Your task to perform on an android device: Show me recent news Image 0: 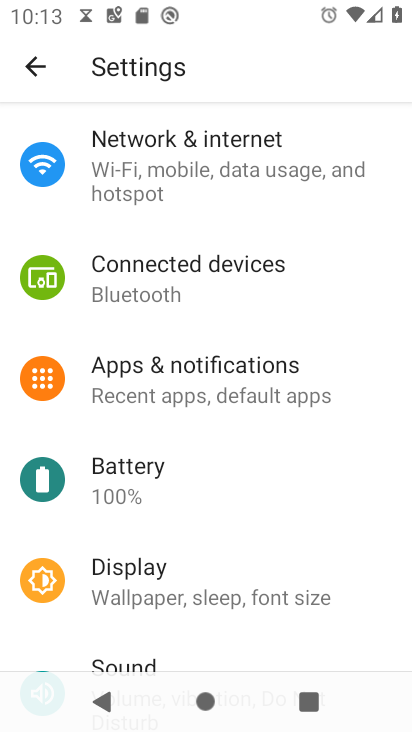
Step 0: press home button
Your task to perform on an android device: Show me recent news Image 1: 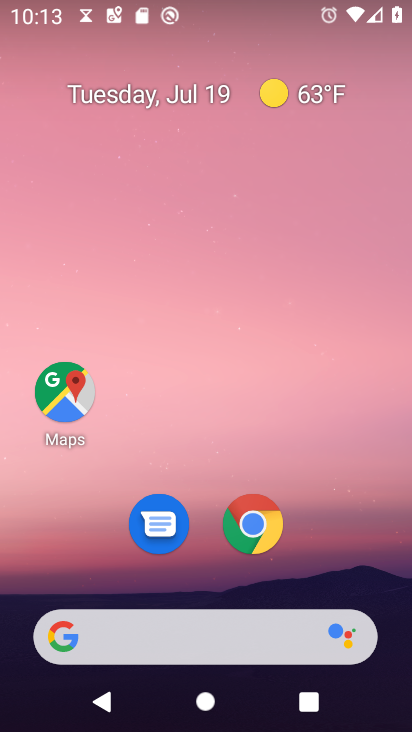
Step 1: click (202, 635)
Your task to perform on an android device: Show me recent news Image 2: 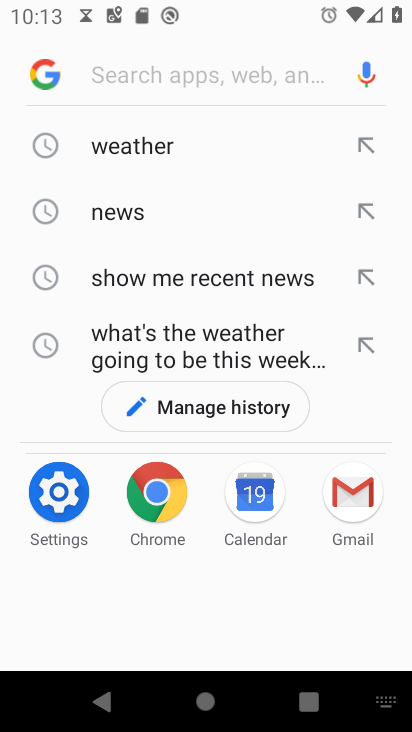
Step 2: click (127, 211)
Your task to perform on an android device: Show me recent news Image 3: 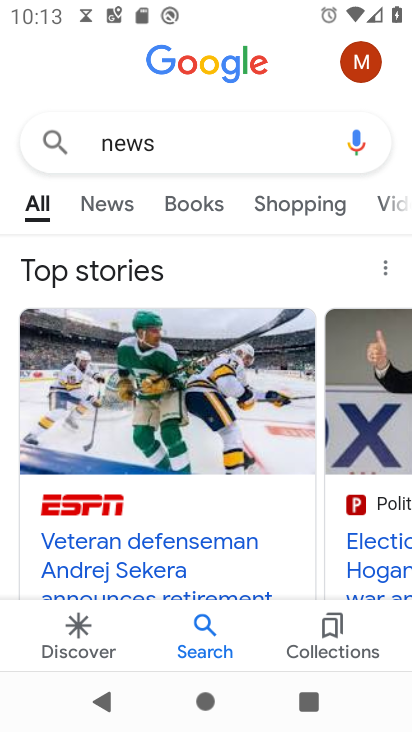
Step 3: click (113, 204)
Your task to perform on an android device: Show me recent news Image 4: 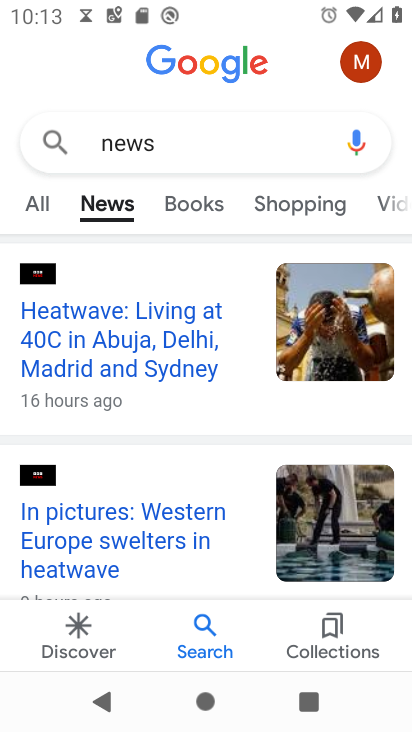
Step 4: task complete